Your task to perform on an android device: Play the last video I watched on Youtube Image 0: 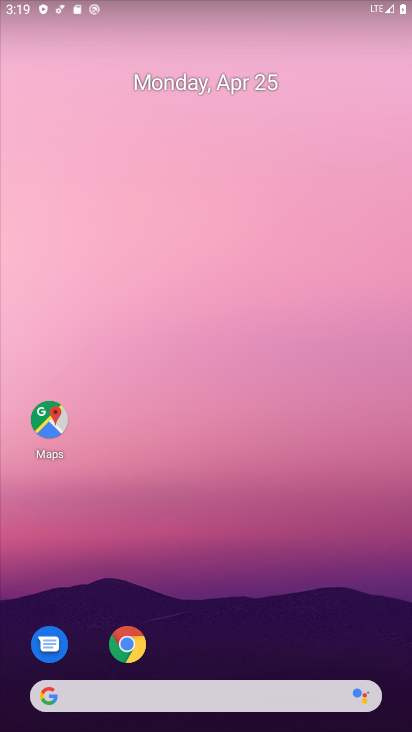
Step 0: drag from (246, 634) to (225, 192)
Your task to perform on an android device: Play the last video I watched on Youtube Image 1: 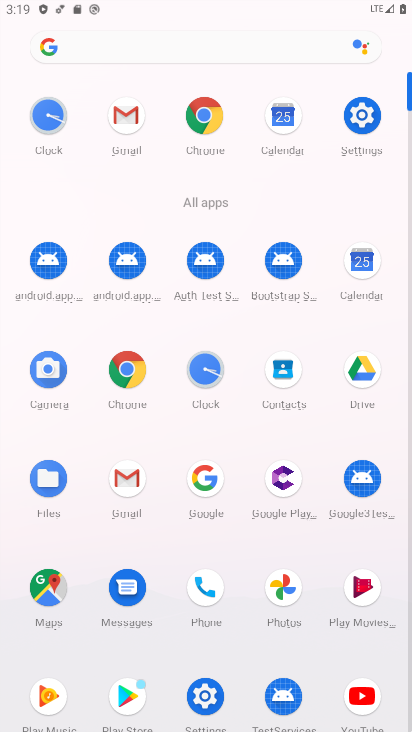
Step 1: click (355, 691)
Your task to perform on an android device: Play the last video I watched on Youtube Image 2: 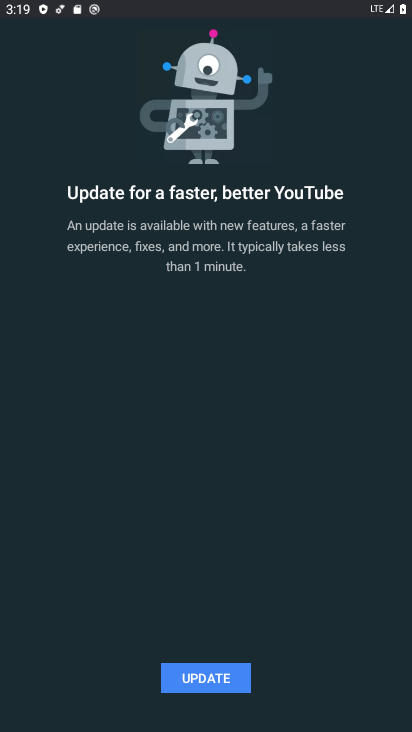
Step 2: click (235, 685)
Your task to perform on an android device: Play the last video I watched on Youtube Image 3: 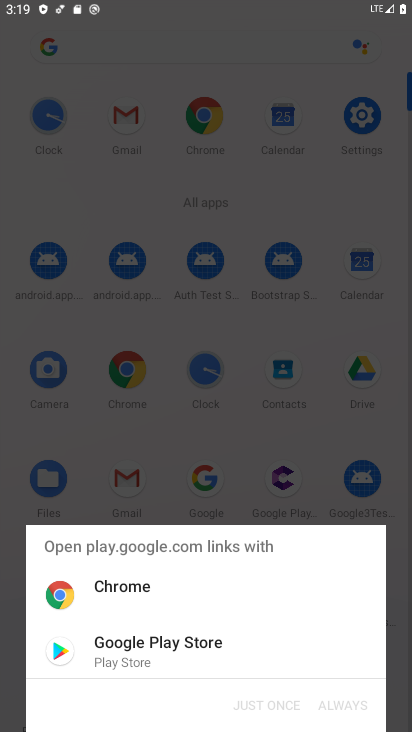
Step 3: click (245, 660)
Your task to perform on an android device: Play the last video I watched on Youtube Image 4: 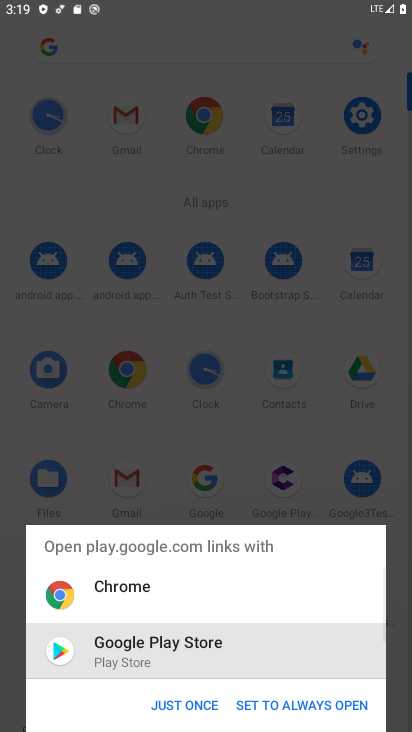
Step 4: click (188, 708)
Your task to perform on an android device: Play the last video I watched on Youtube Image 5: 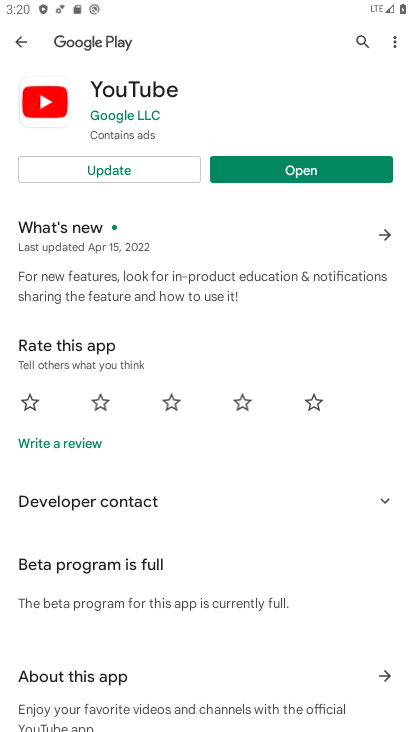
Step 5: click (118, 169)
Your task to perform on an android device: Play the last video I watched on Youtube Image 6: 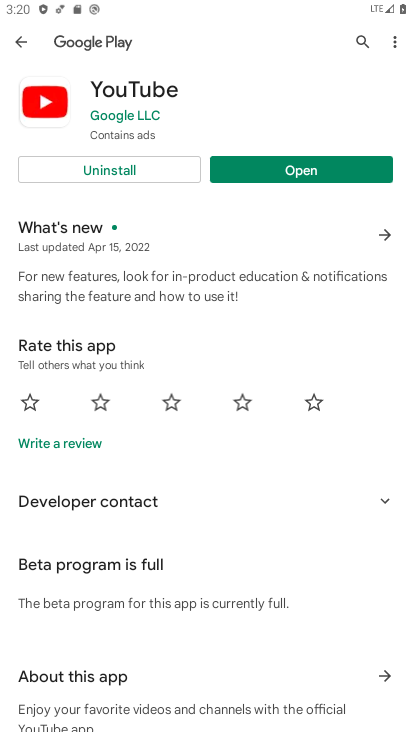
Step 6: click (272, 169)
Your task to perform on an android device: Play the last video I watched on Youtube Image 7: 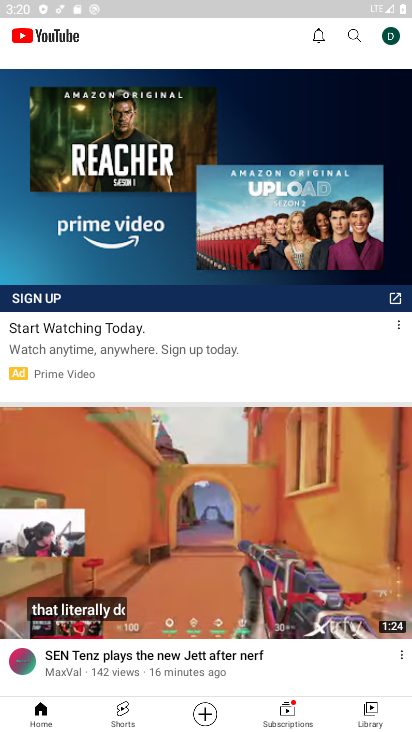
Step 7: click (374, 725)
Your task to perform on an android device: Play the last video I watched on Youtube Image 8: 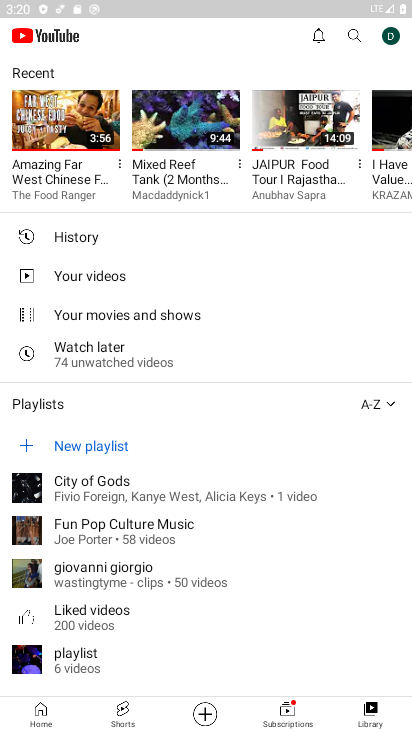
Step 8: click (66, 107)
Your task to perform on an android device: Play the last video I watched on Youtube Image 9: 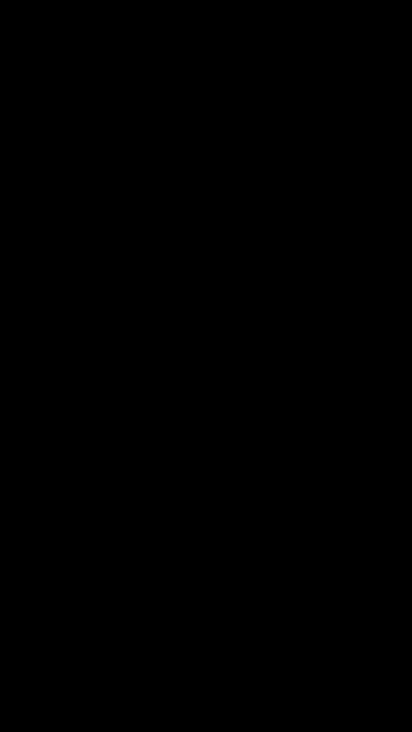
Step 9: task complete